Your task to perform on an android device: change text size in settings app Image 0: 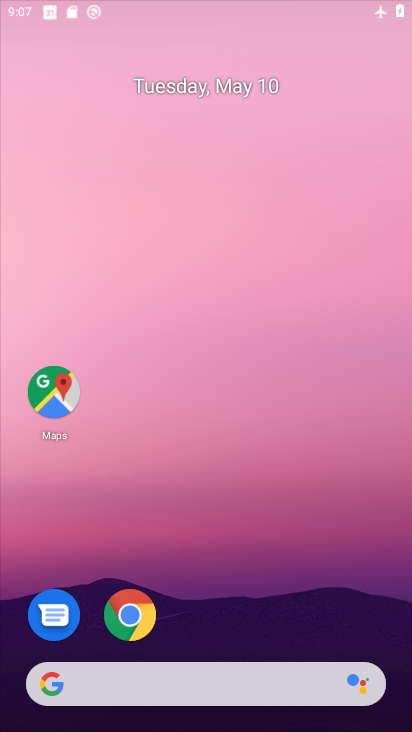
Step 0: drag from (216, 619) to (171, 221)
Your task to perform on an android device: change text size in settings app Image 1: 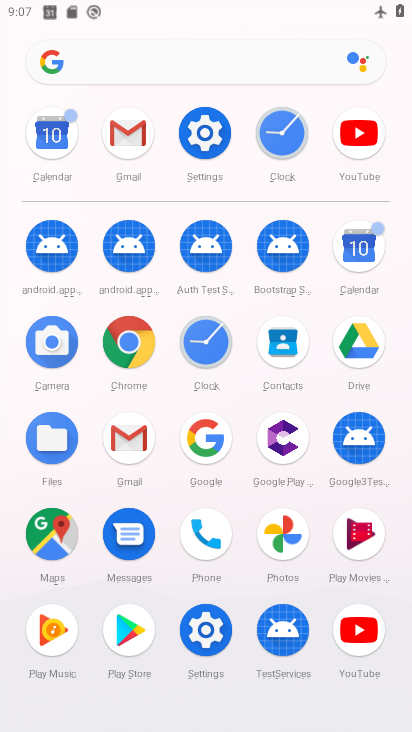
Step 1: click (205, 123)
Your task to perform on an android device: change text size in settings app Image 2: 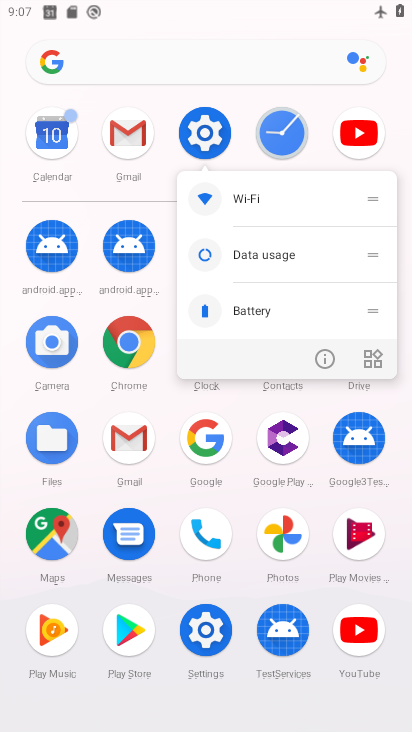
Step 2: click (327, 355)
Your task to perform on an android device: change text size in settings app Image 3: 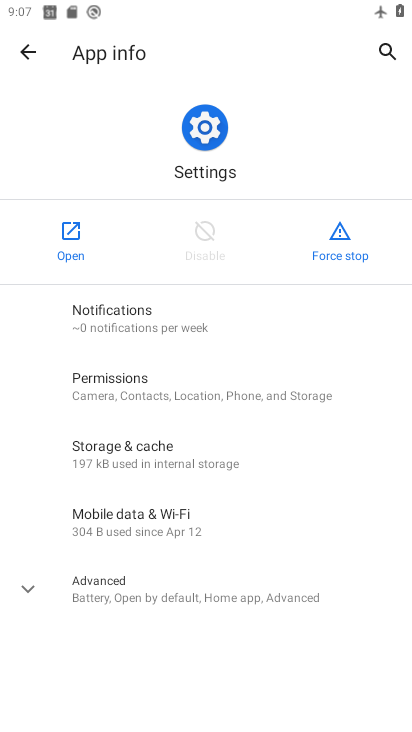
Step 3: click (51, 233)
Your task to perform on an android device: change text size in settings app Image 4: 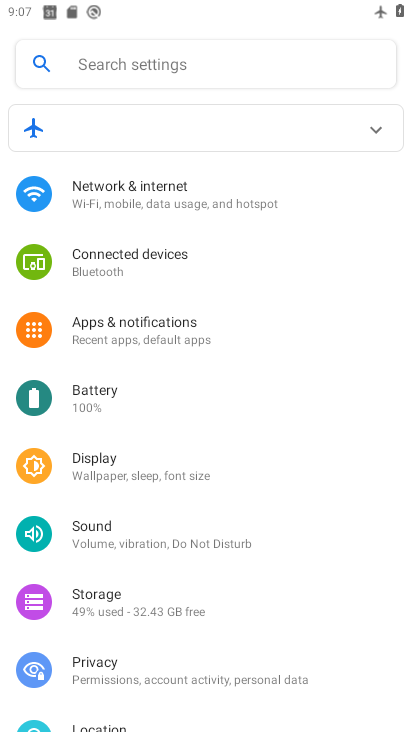
Step 4: click (109, 458)
Your task to perform on an android device: change text size in settings app Image 5: 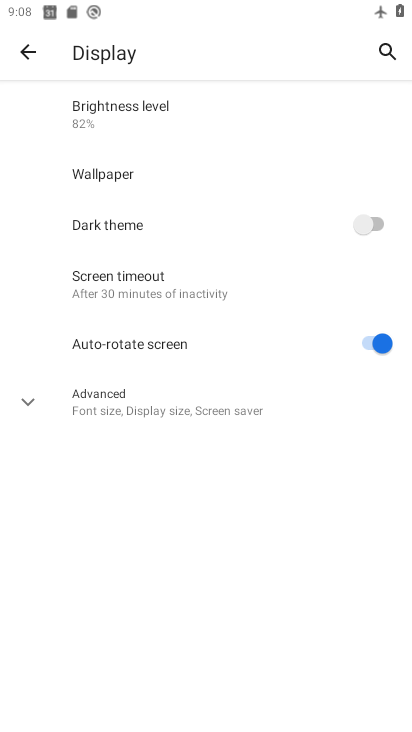
Step 5: click (96, 403)
Your task to perform on an android device: change text size in settings app Image 6: 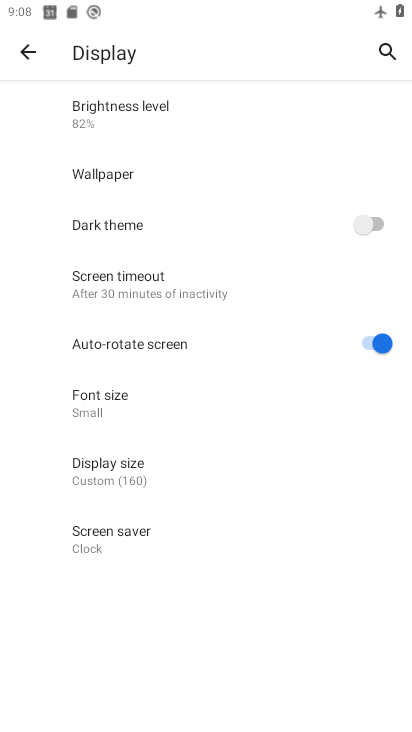
Step 6: click (145, 416)
Your task to perform on an android device: change text size in settings app Image 7: 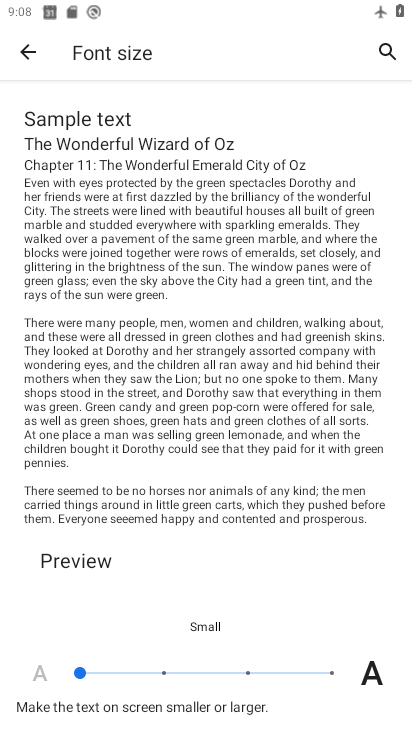
Step 7: drag from (208, 526) to (305, 68)
Your task to perform on an android device: change text size in settings app Image 8: 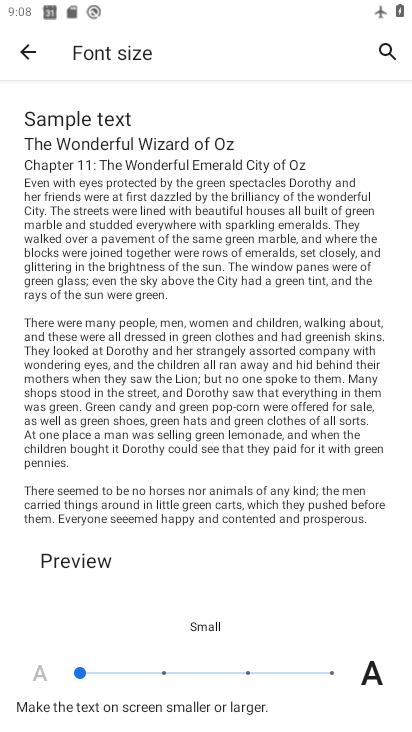
Step 8: drag from (247, 475) to (290, 195)
Your task to perform on an android device: change text size in settings app Image 9: 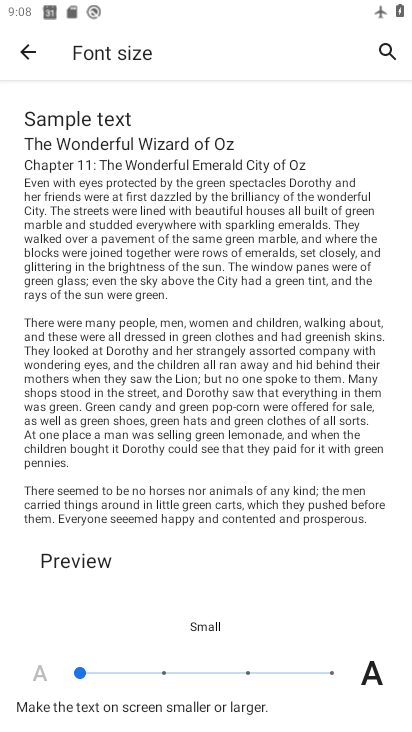
Step 9: click (139, 671)
Your task to perform on an android device: change text size in settings app Image 10: 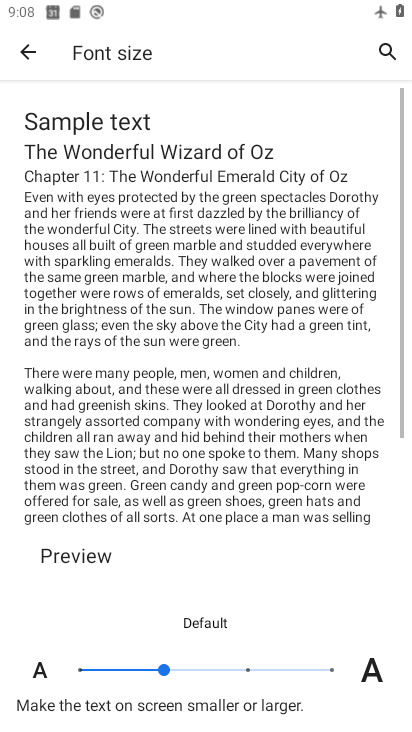
Step 10: task complete